Your task to perform on an android device: install app "Google Calendar" Image 0: 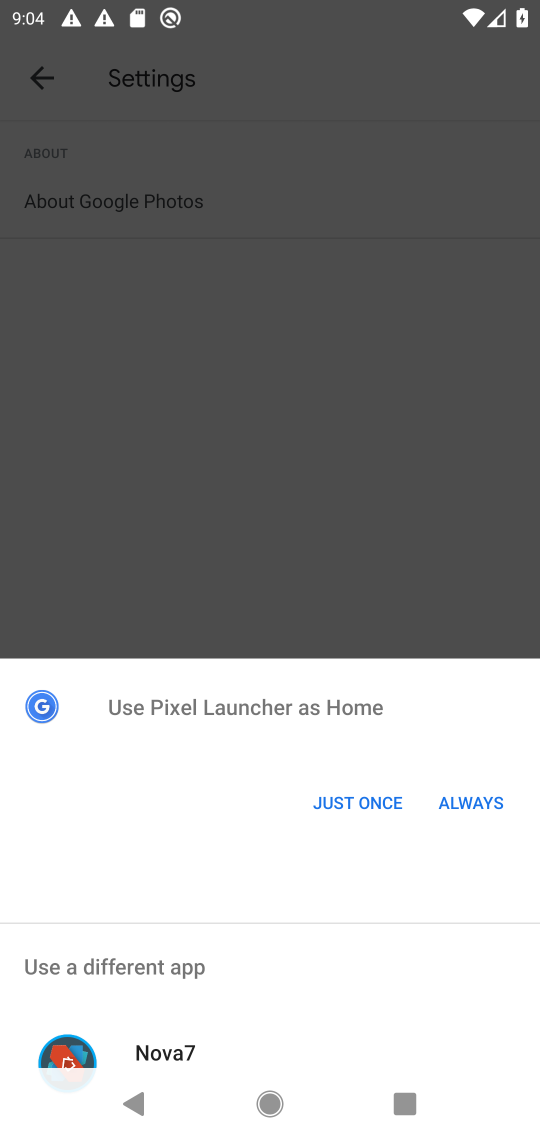
Step 0: press home button
Your task to perform on an android device: install app "Google Calendar" Image 1: 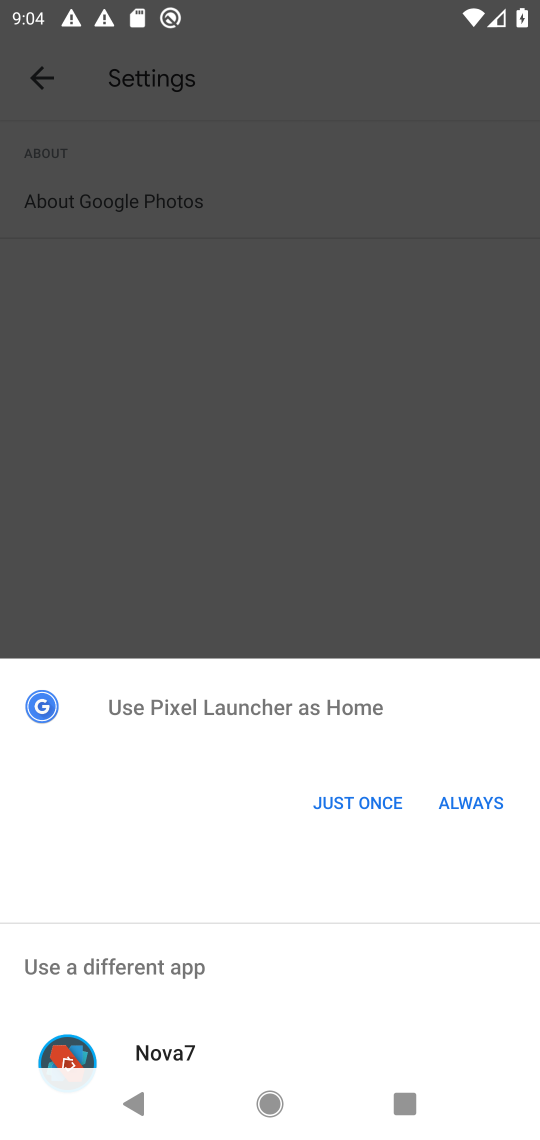
Step 1: click (379, 779)
Your task to perform on an android device: install app "Google Calendar" Image 2: 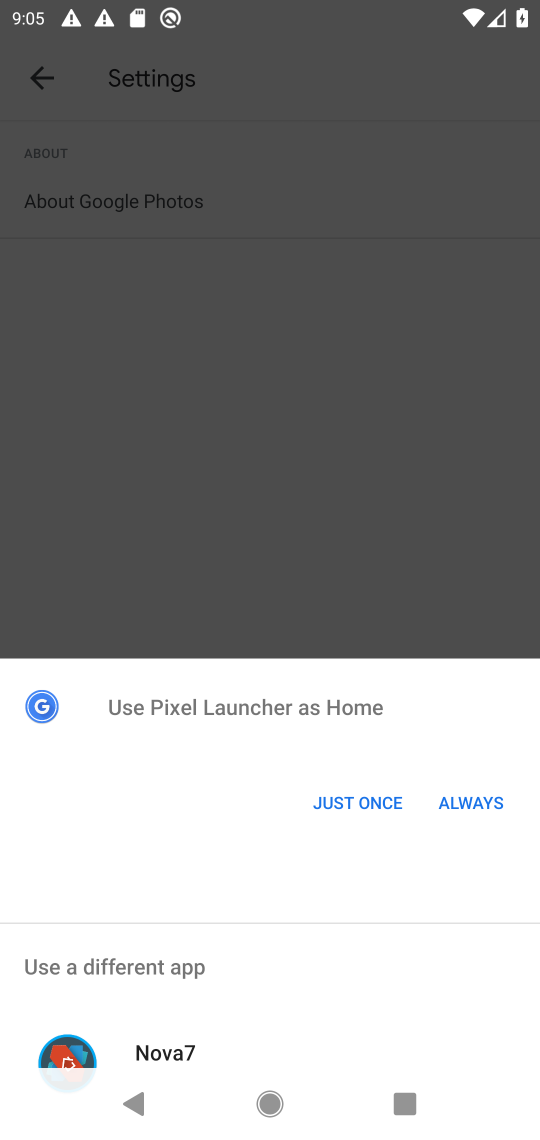
Step 2: click (373, 810)
Your task to perform on an android device: install app "Google Calendar" Image 3: 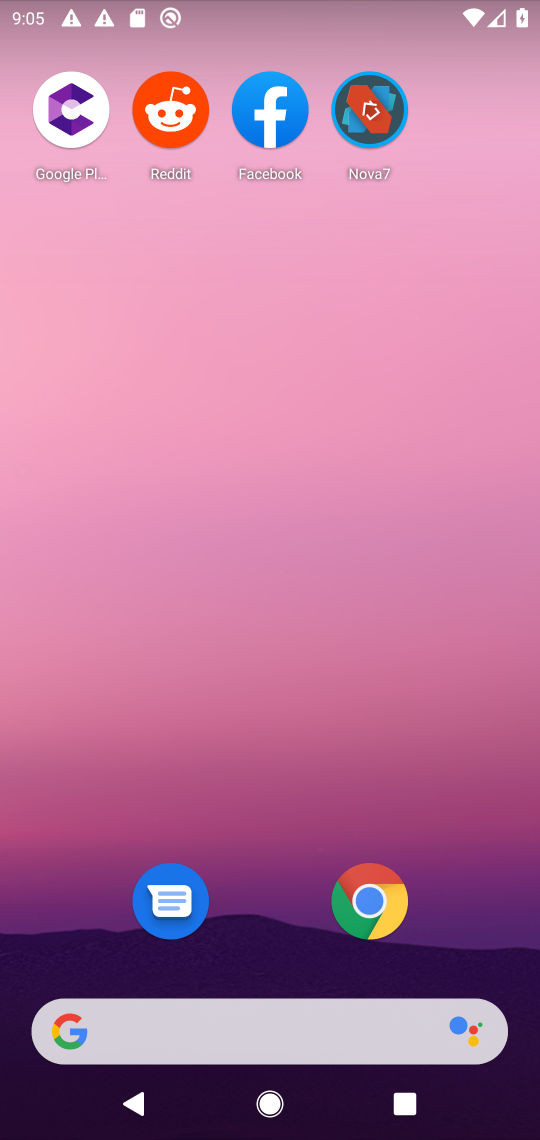
Step 3: drag from (196, 1005) to (240, 200)
Your task to perform on an android device: install app "Google Calendar" Image 4: 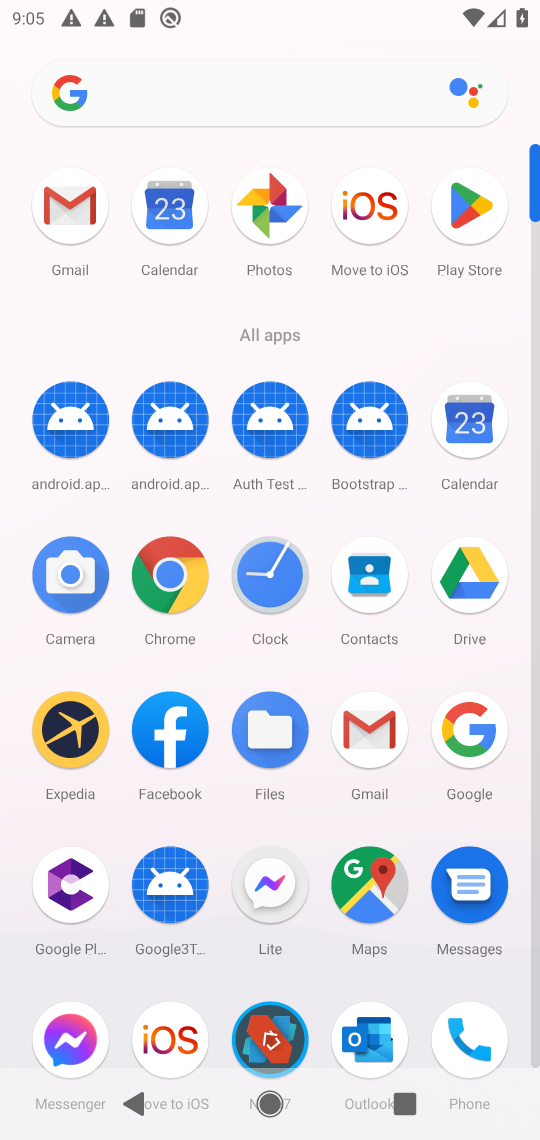
Step 4: click (454, 218)
Your task to perform on an android device: install app "Google Calendar" Image 5: 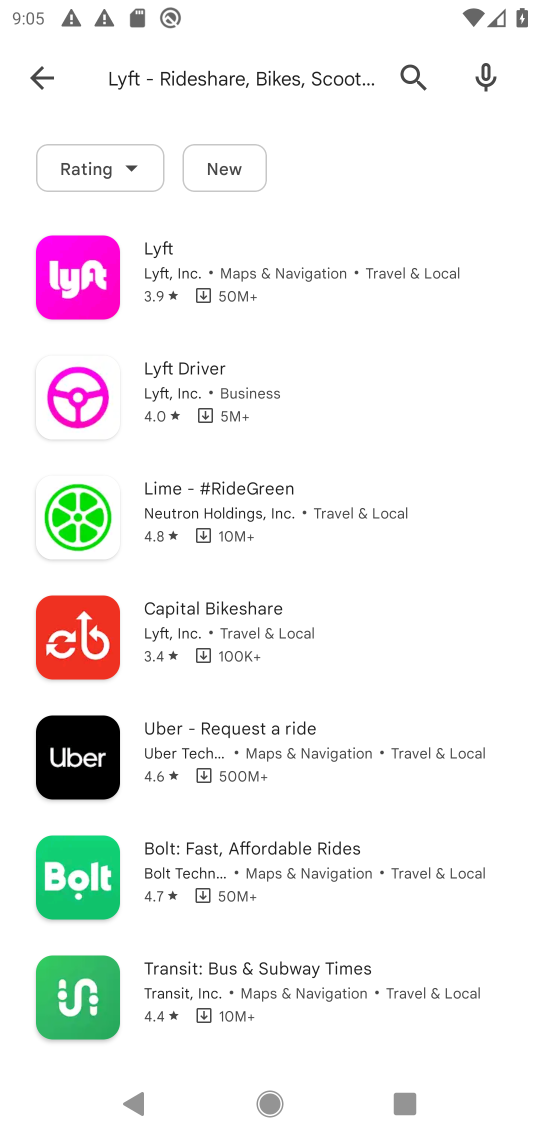
Step 5: press back button
Your task to perform on an android device: install app "Google Calendar" Image 6: 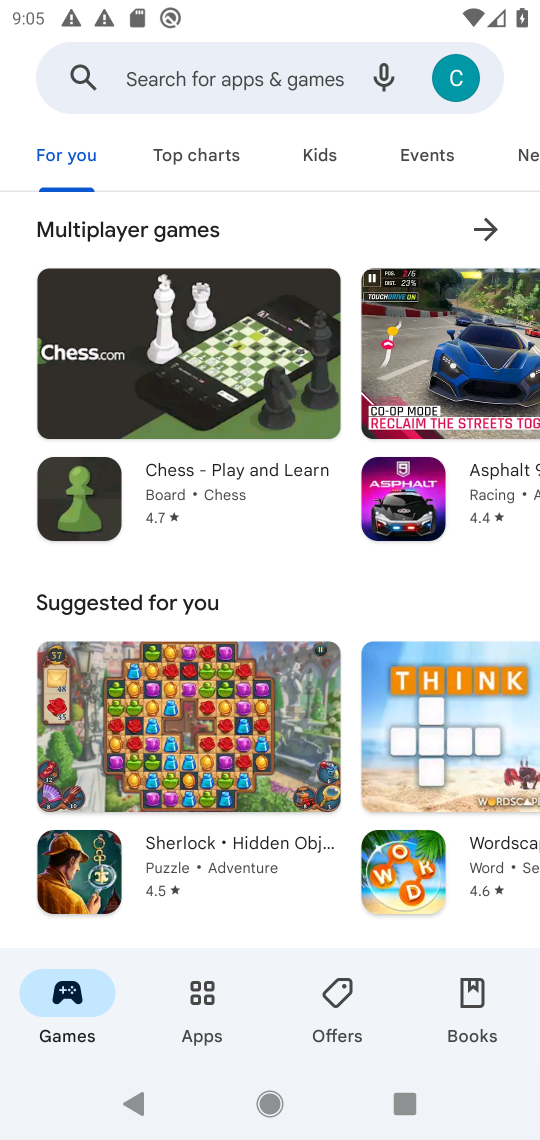
Step 6: click (181, 69)
Your task to perform on an android device: install app "Google Calendar" Image 7: 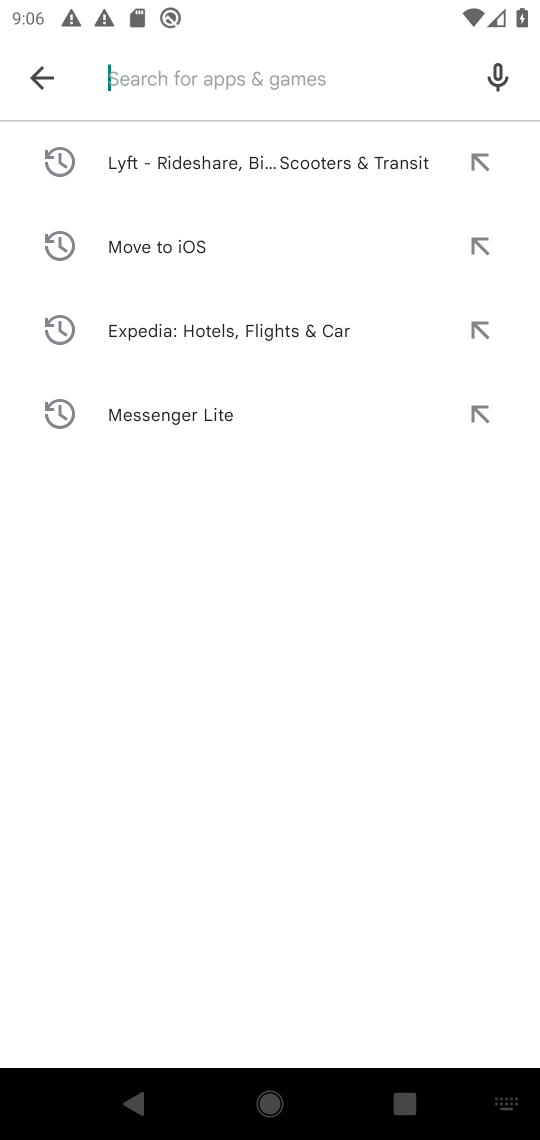
Step 7: type "Google Calendar"
Your task to perform on an android device: install app "Google Calendar" Image 8: 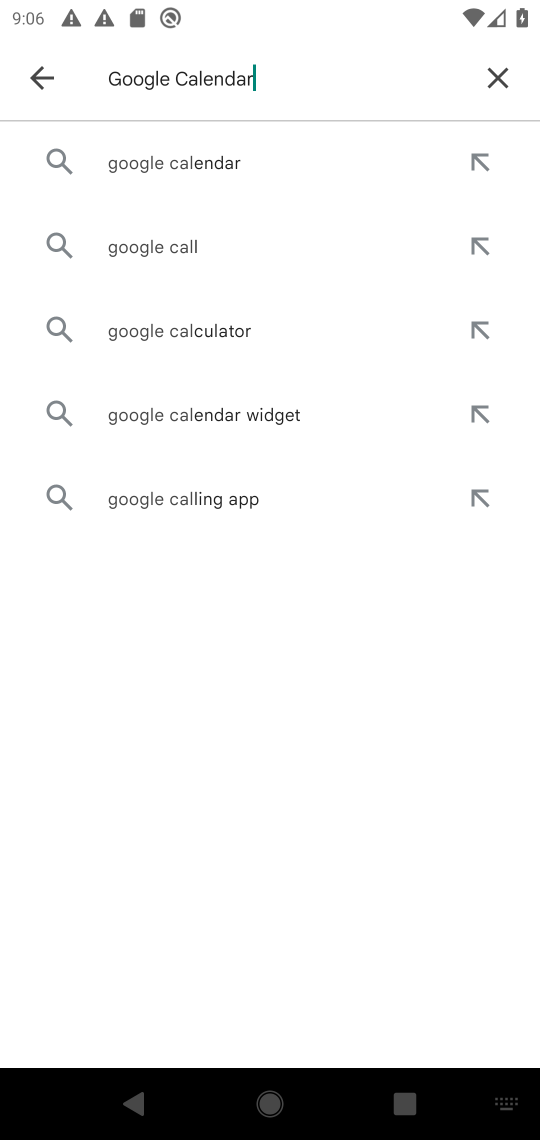
Step 8: press enter
Your task to perform on an android device: install app "Google Calendar" Image 9: 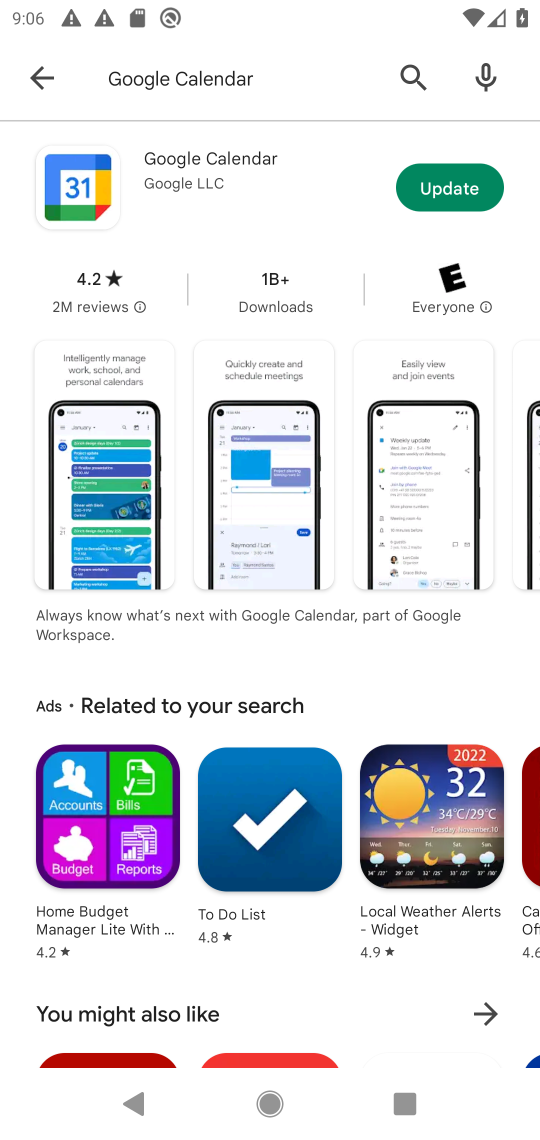
Step 9: click (452, 185)
Your task to perform on an android device: install app "Google Calendar" Image 10: 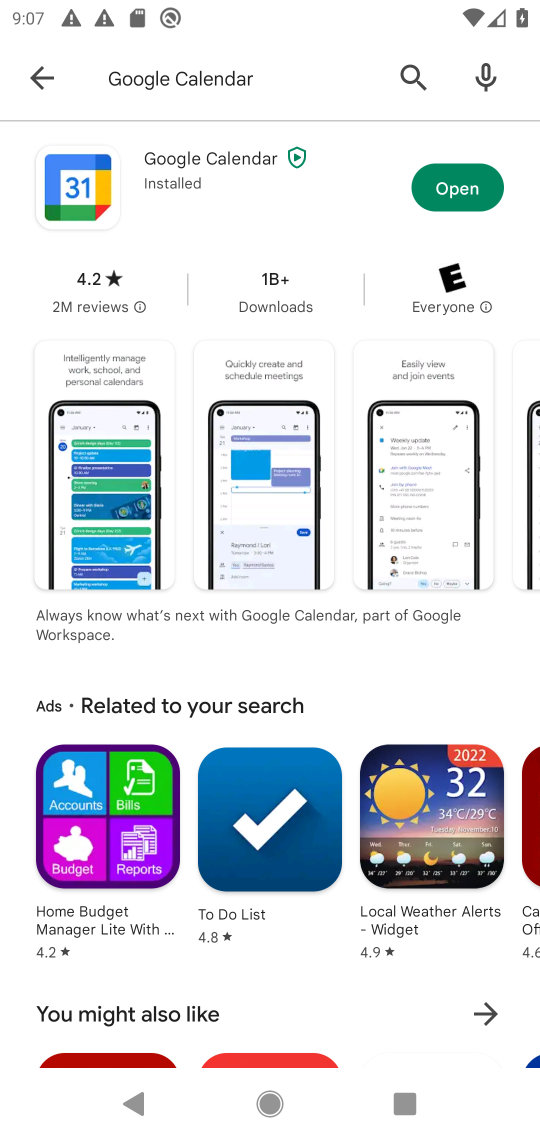
Step 10: click (479, 201)
Your task to perform on an android device: install app "Google Calendar" Image 11: 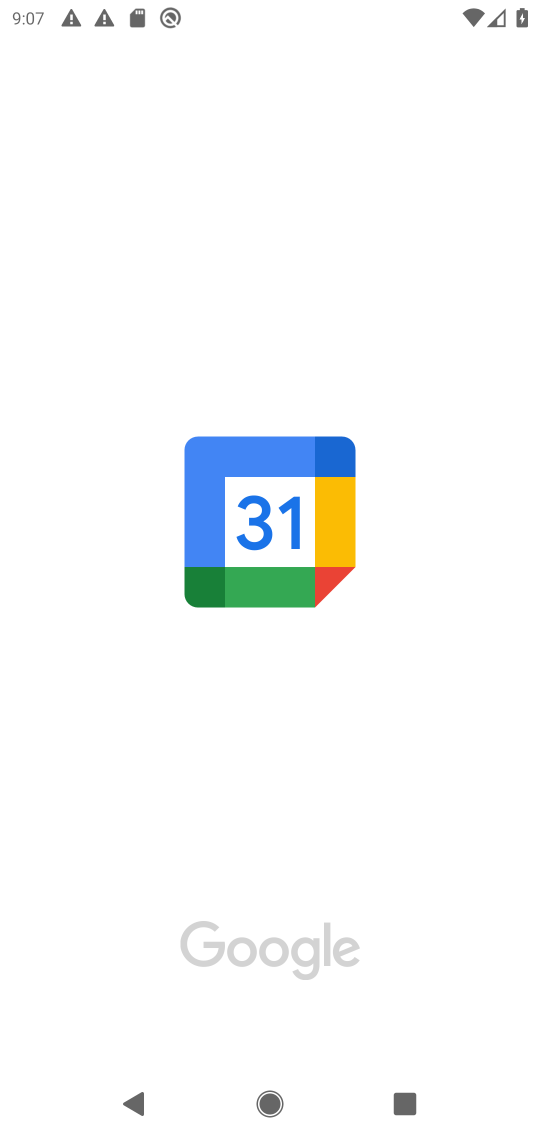
Step 11: task complete